Your task to perform on an android device: find which apps use the phone's location Image 0: 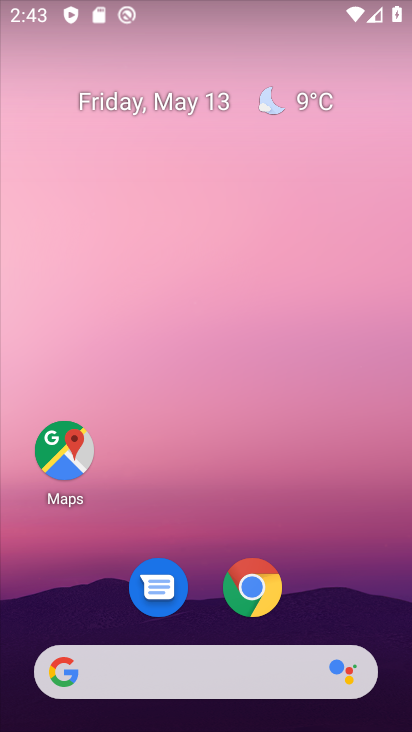
Step 0: drag from (350, 557) to (330, 156)
Your task to perform on an android device: find which apps use the phone's location Image 1: 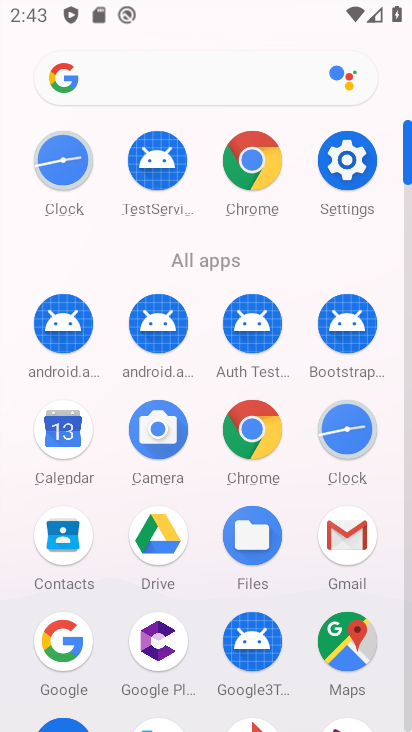
Step 1: click (348, 175)
Your task to perform on an android device: find which apps use the phone's location Image 2: 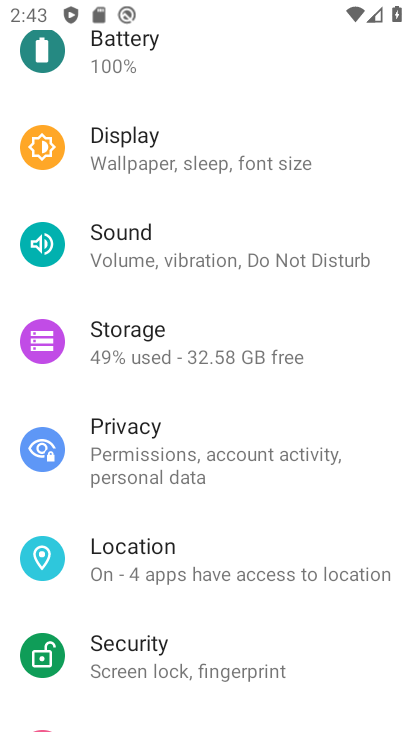
Step 2: click (155, 570)
Your task to perform on an android device: find which apps use the phone's location Image 3: 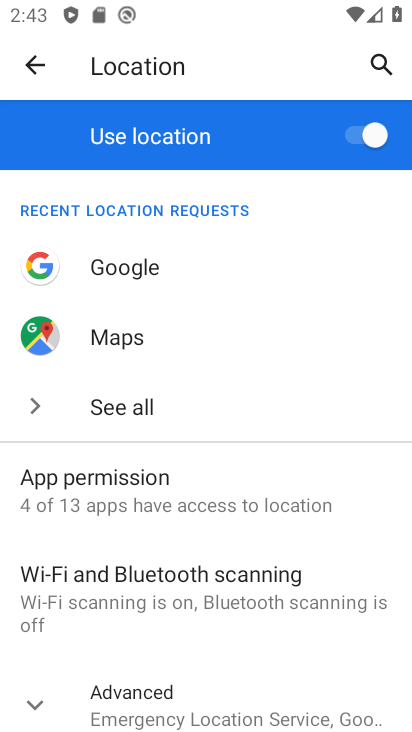
Step 3: drag from (224, 616) to (263, 254)
Your task to perform on an android device: find which apps use the phone's location Image 4: 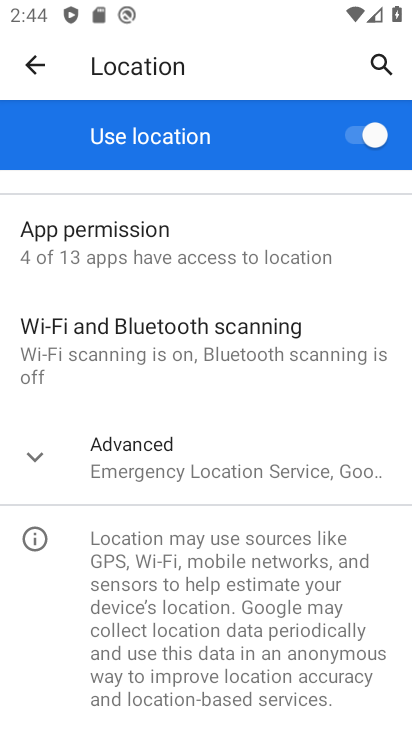
Step 4: click (29, 629)
Your task to perform on an android device: find which apps use the phone's location Image 5: 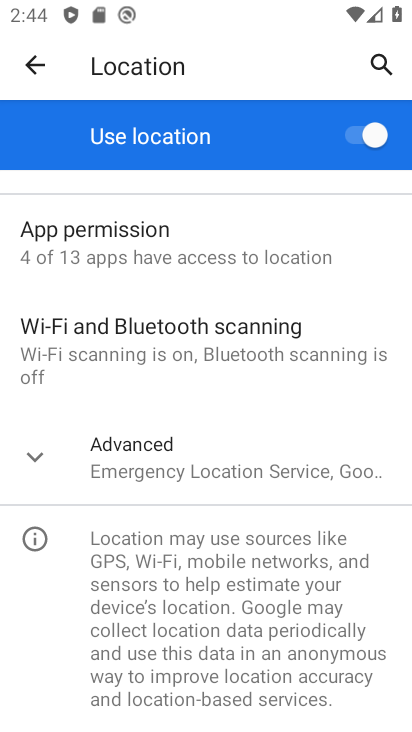
Step 5: click (25, 450)
Your task to perform on an android device: find which apps use the phone's location Image 6: 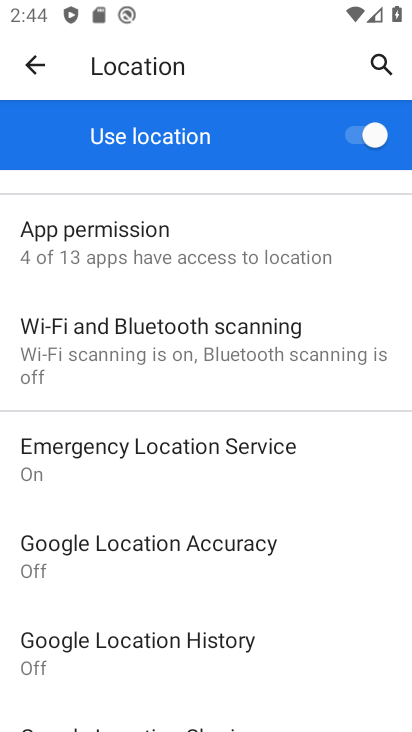
Step 6: click (191, 687)
Your task to perform on an android device: find which apps use the phone's location Image 7: 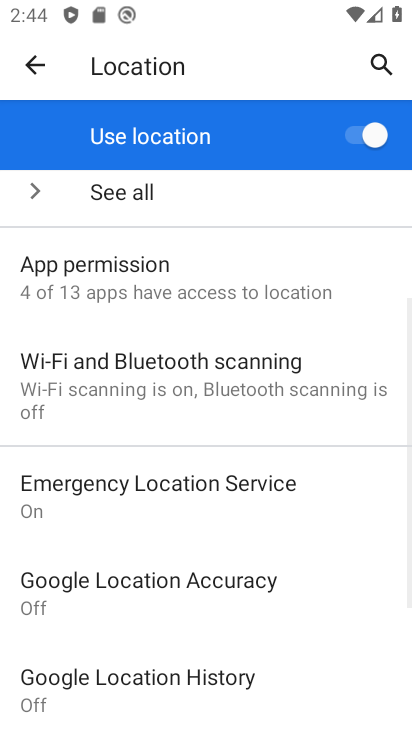
Step 7: drag from (210, 328) to (201, 671)
Your task to perform on an android device: find which apps use the phone's location Image 8: 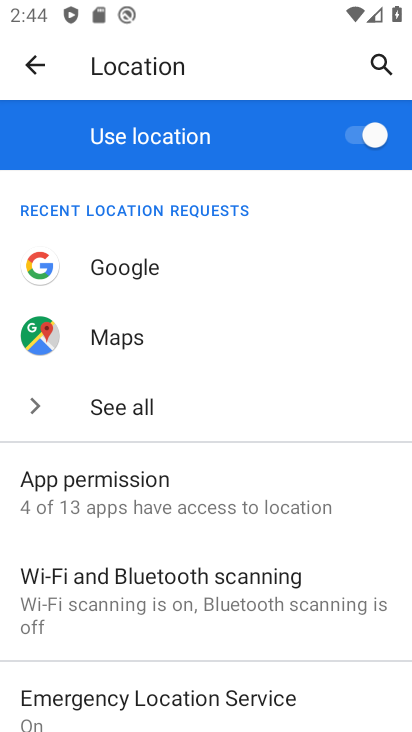
Step 8: click (149, 274)
Your task to perform on an android device: find which apps use the phone's location Image 9: 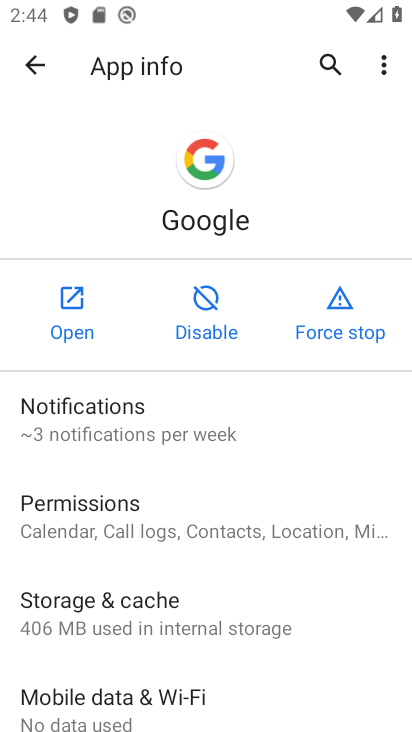
Step 9: click (141, 529)
Your task to perform on an android device: find which apps use the phone's location Image 10: 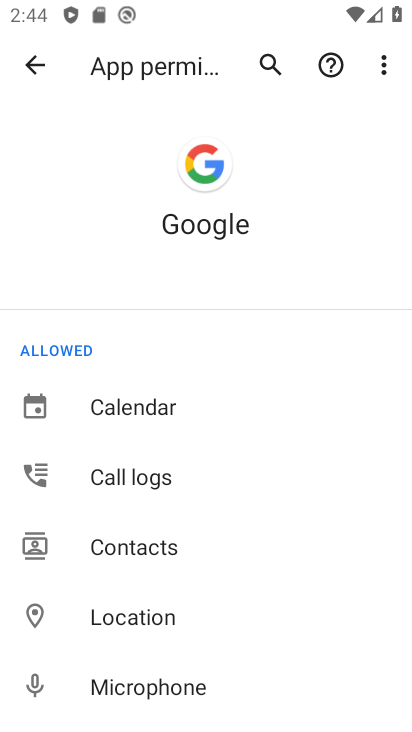
Step 10: click (153, 620)
Your task to perform on an android device: find which apps use the phone's location Image 11: 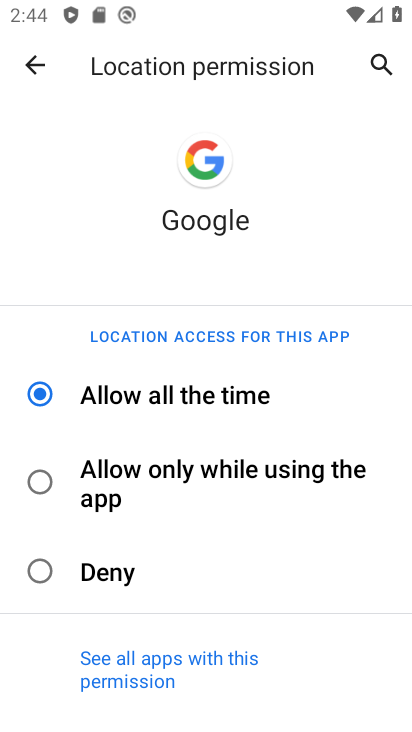
Step 11: task complete